Your task to perform on an android device: Open calendar and show me the first week of next month Image 0: 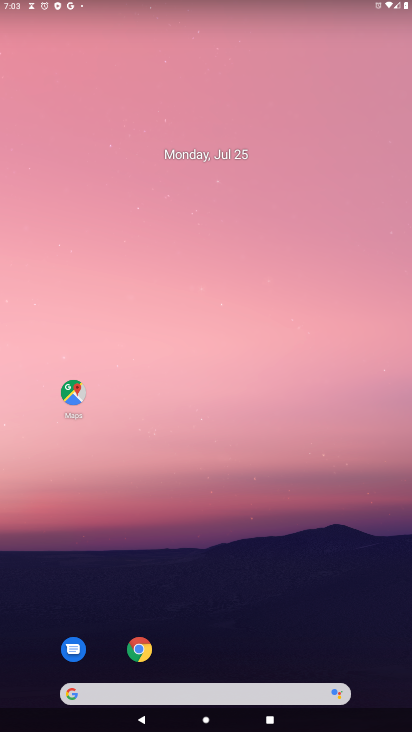
Step 0: drag from (348, 699) to (390, 59)
Your task to perform on an android device: Open calendar and show me the first week of next month Image 1: 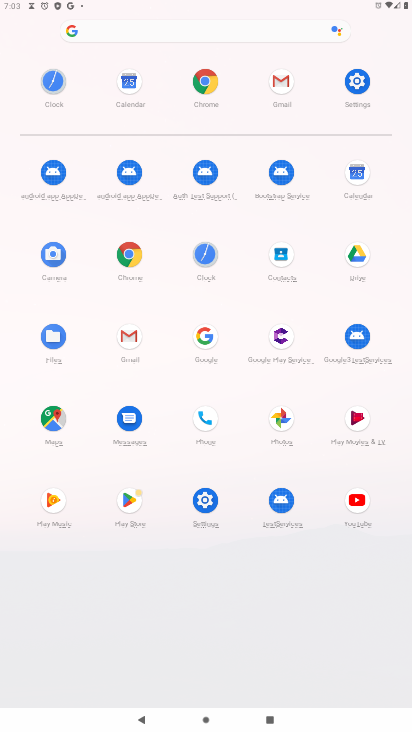
Step 1: click (360, 179)
Your task to perform on an android device: Open calendar and show me the first week of next month Image 2: 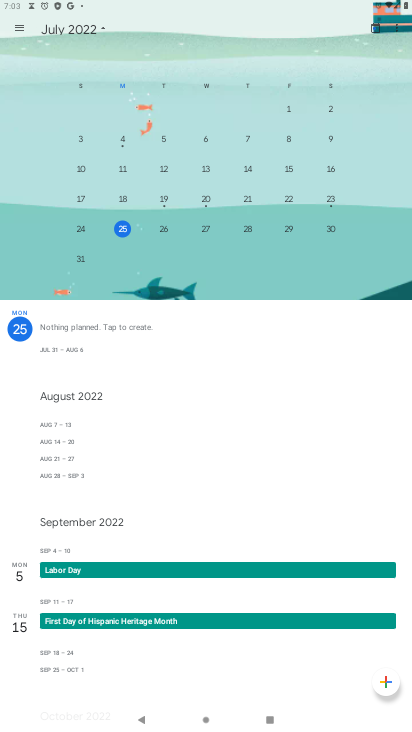
Step 2: drag from (322, 172) to (41, 129)
Your task to perform on an android device: Open calendar and show me the first week of next month Image 3: 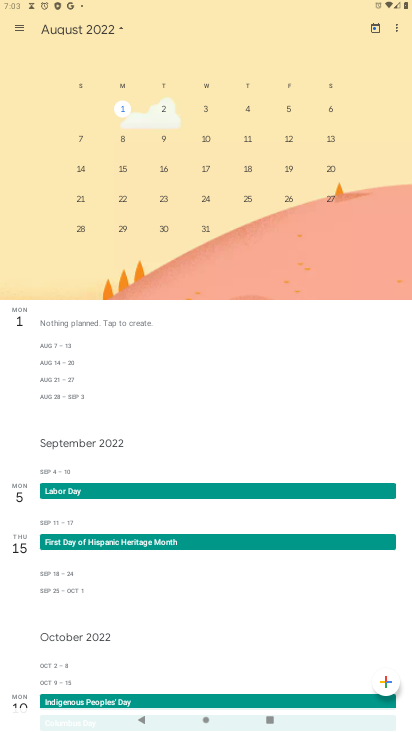
Step 3: click (244, 106)
Your task to perform on an android device: Open calendar and show me the first week of next month Image 4: 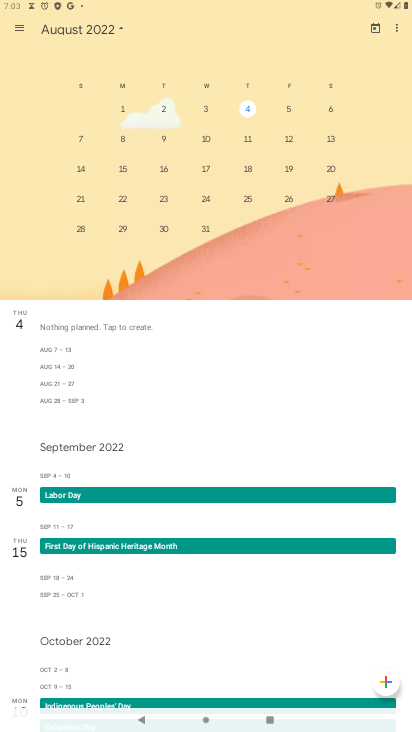
Step 4: task complete